Your task to perform on an android device: turn on location history Image 0: 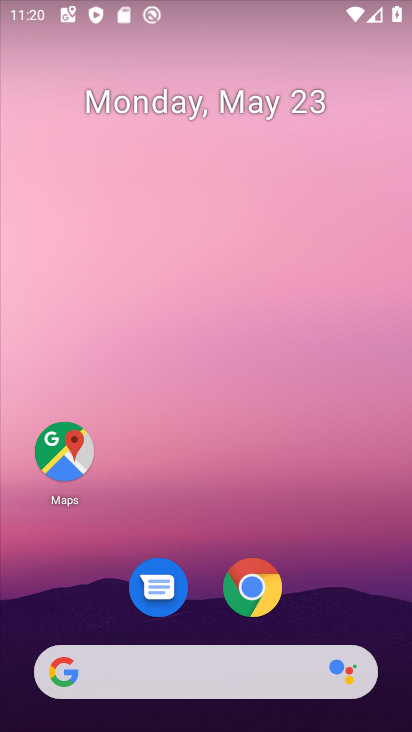
Step 0: click (85, 456)
Your task to perform on an android device: turn on location history Image 1: 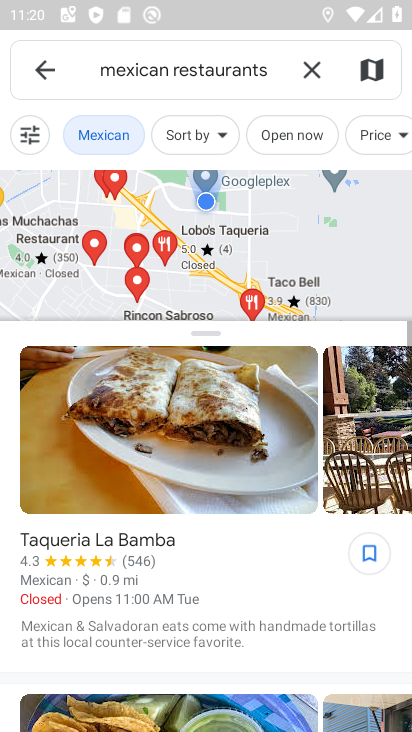
Step 1: click (47, 72)
Your task to perform on an android device: turn on location history Image 2: 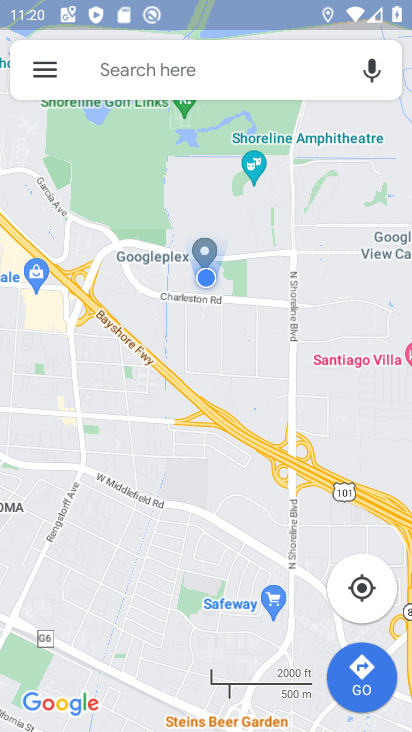
Step 2: click (47, 72)
Your task to perform on an android device: turn on location history Image 3: 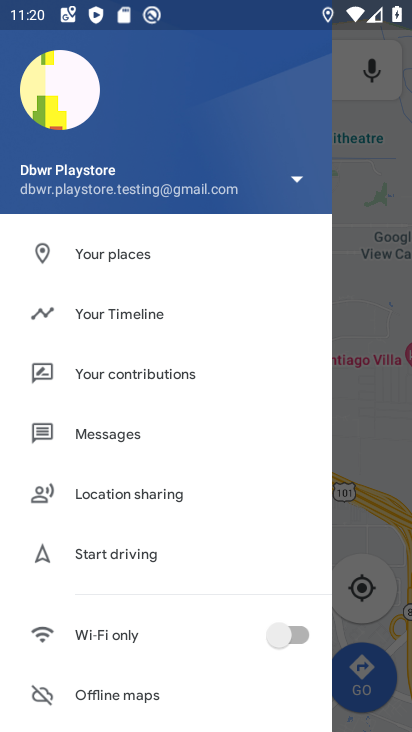
Step 3: click (136, 326)
Your task to perform on an android device: turn on location history Image 4: 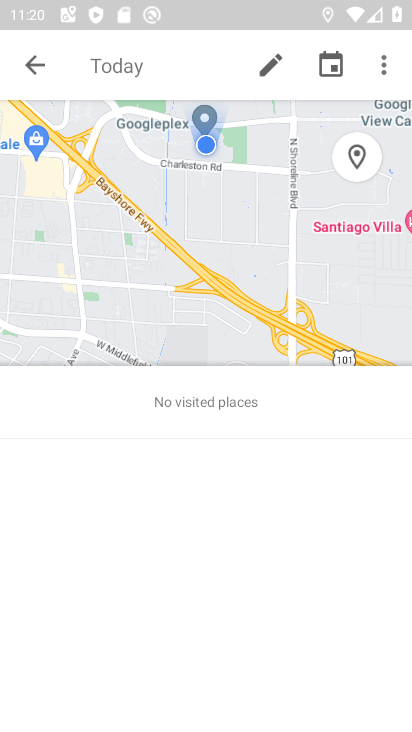
Step 4: click (388, 72)
Your task to perform on an android device: turn on location history Image 5: 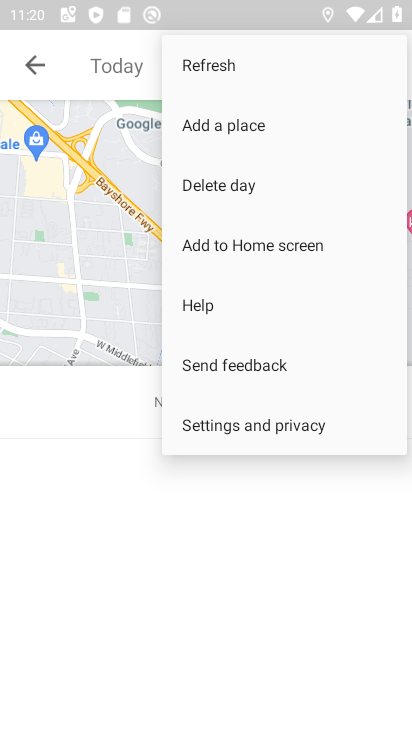
Step 5: click (245, 426)
Your task to perform on an android device: turn on location history Image 6: 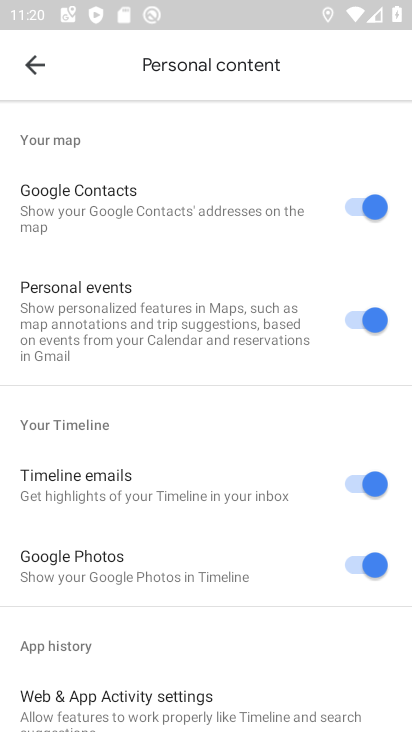
Step 6: drag from (252, 690) to (236, 293)
Your task to perform on an android device: turn on location history Image 7: 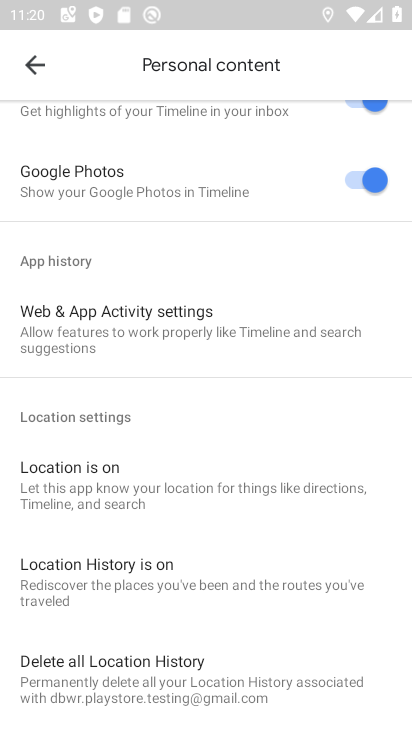
Step 7: drag from (254, 643) to (246, 406)
Your task to perform on an android device: turn on location history Image 8: 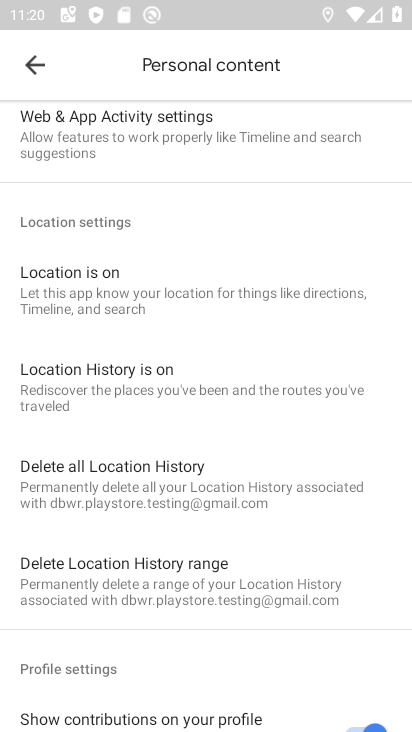
Step 8: click (230, 394)
Your task to perform on an android device: turn on location history Image 9: 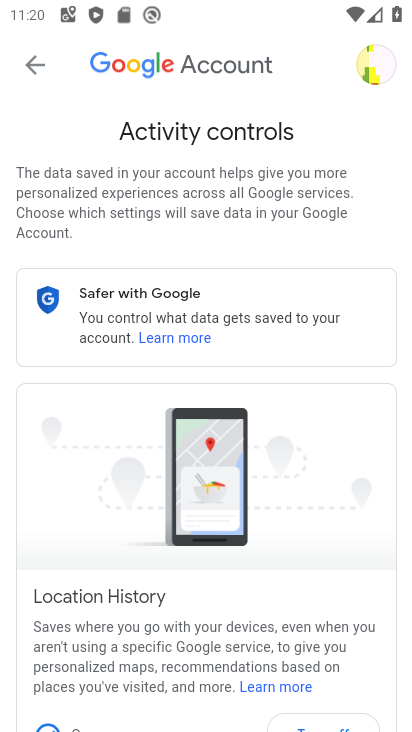
Step 9: task complete